Your task to perform on an android device: Search for sushi restaurants on Maps Image 0: 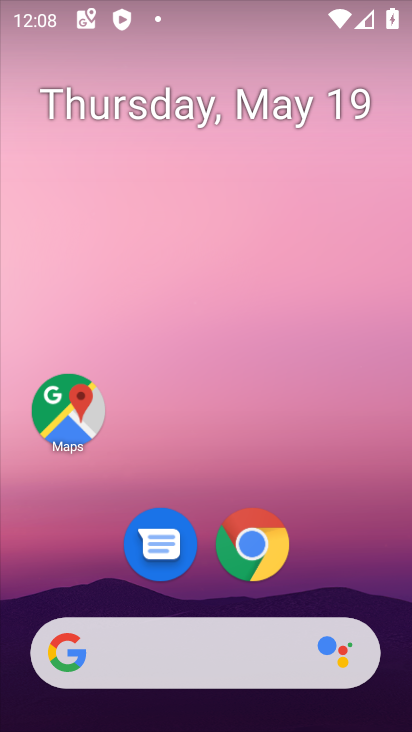
Step 0: drag from (206, 723) to (195, 128)
Your task to perform on an android device: Search for sushi restaurants on Maps Image 1: 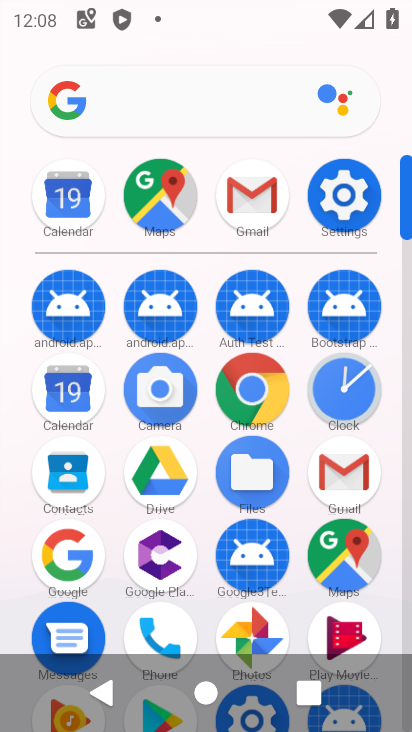
Step 1: click (342, 552)
Your task to perform on an android device: Search for sushi restaurants on Maps Image 2: 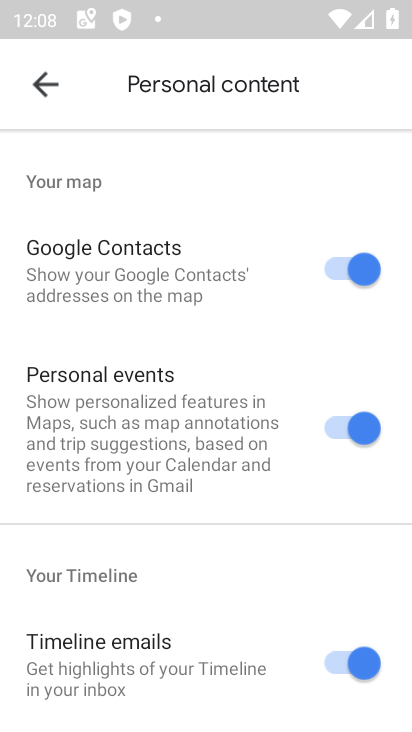
Step 2: click (49, 89)
Your task to perform on an android device: Search for sushi restaurants on Maps Image 3: 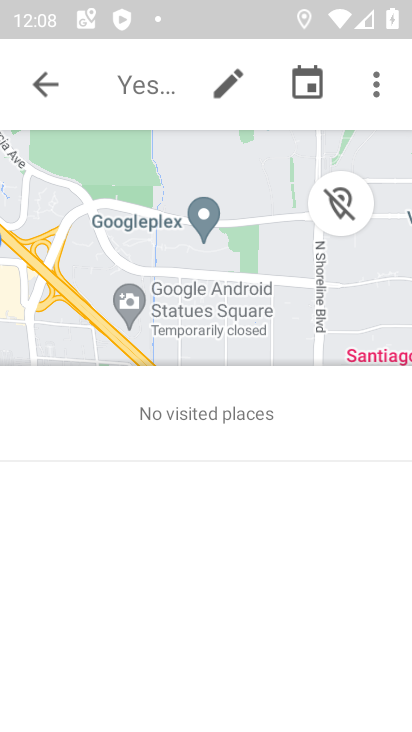
Step 3: click (219, 89)
Your task to perform on an android device: Search for sushi restaurants on Maps Image 4: 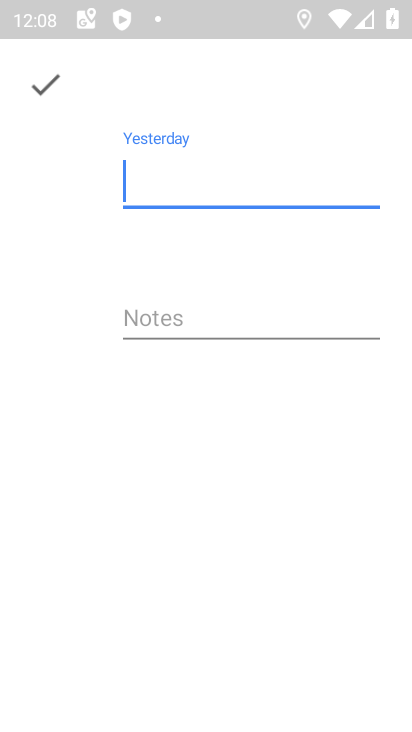
Step 4: click (52, 83)
Your task to perform on an android device: Search for sushi restaurants on Maps Image 5: 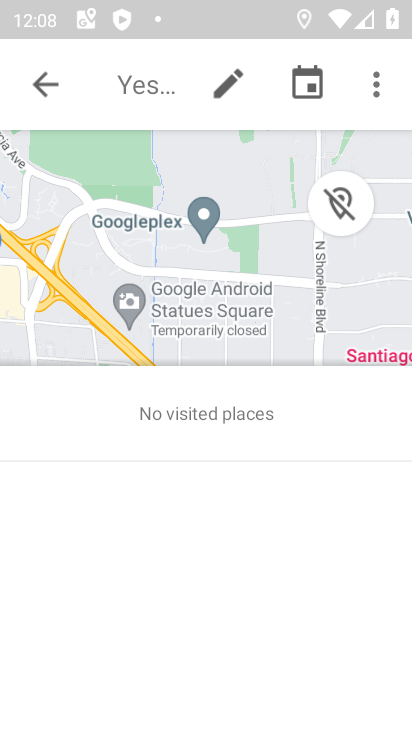
Step 5: press back button
Your task to perform on an android device: Search for sushi restaurants on Maps Image 6: 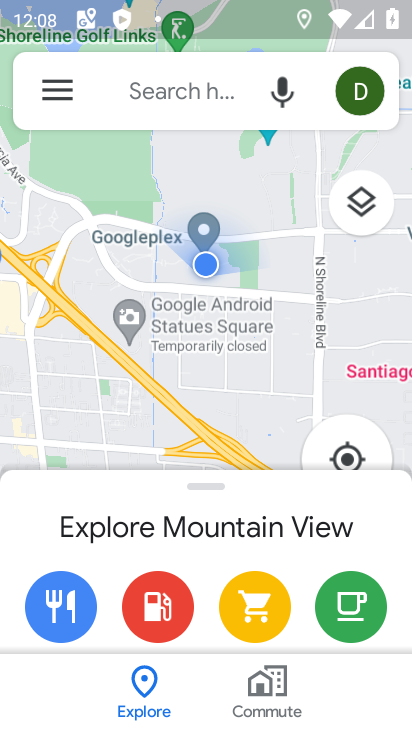
Step 6: click (171, 99)
Your task to perform on an android device: Search for sushi restaurants on Maps Image 7: 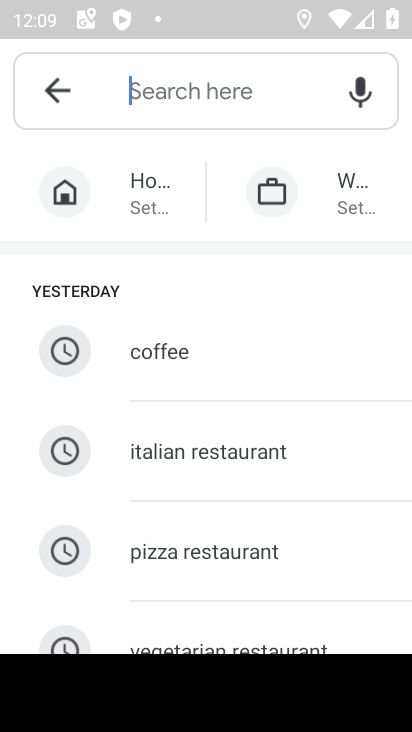
Step 7: type "sushi resturant"
Your task to perform on an android device: Search for sushi restaurants on Maps Image 8: 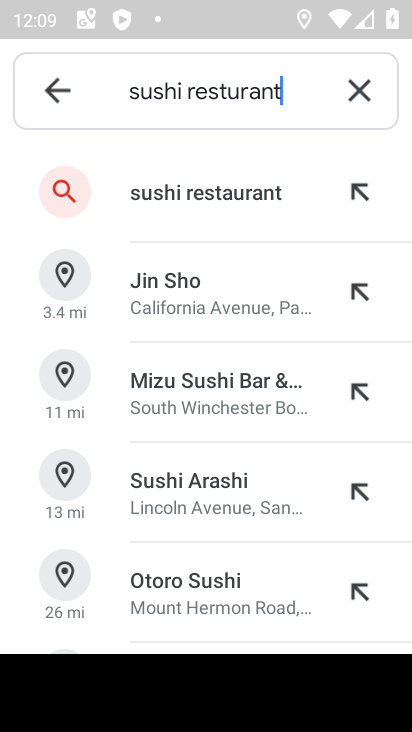
Step 8: click (228, 192)
Your task to perform on an android device: Search for sushi restaurants on Maps Image 9: 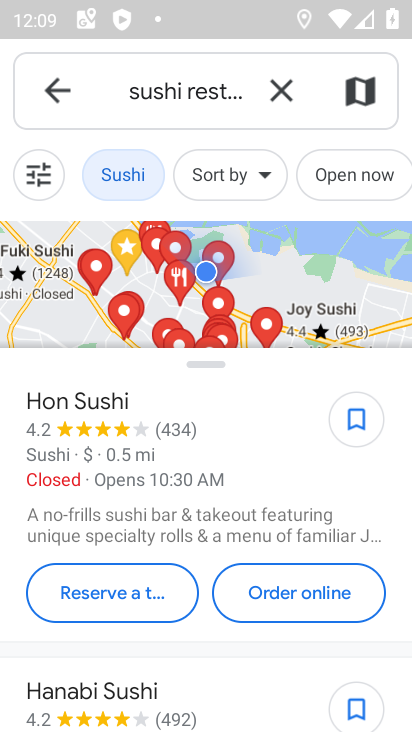
Step 9: task complete